Your task to perform on an android device: check data usage Image 0: 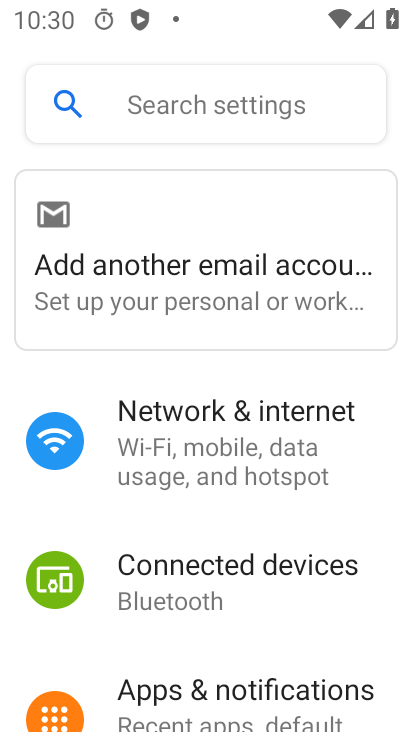
Step 0: press home button
Your task to perform on an android device: check data usage Image 1: 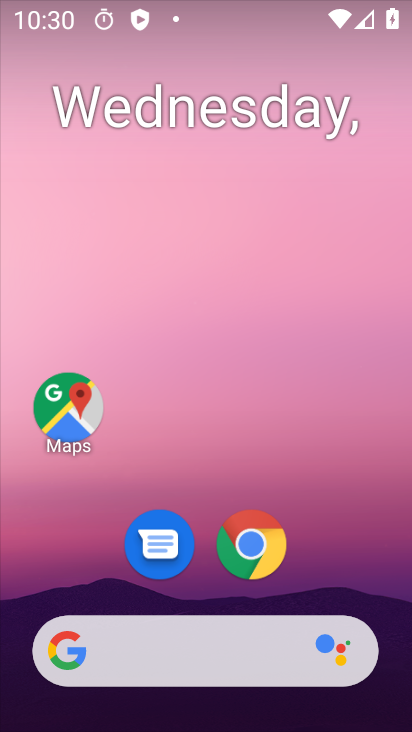
Step 1: drag from (261, 683) to (257, 191)
Your task to perform on an android device: check data usage Image 2: 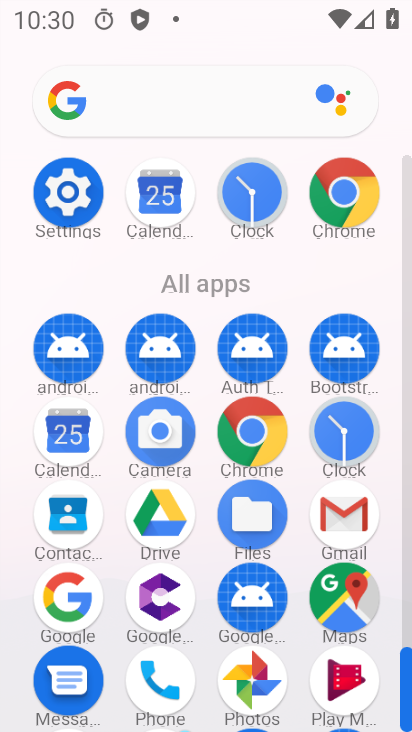
Step 2: click (74, 185)
Your task to perform on an android device: check data usage Image 3: 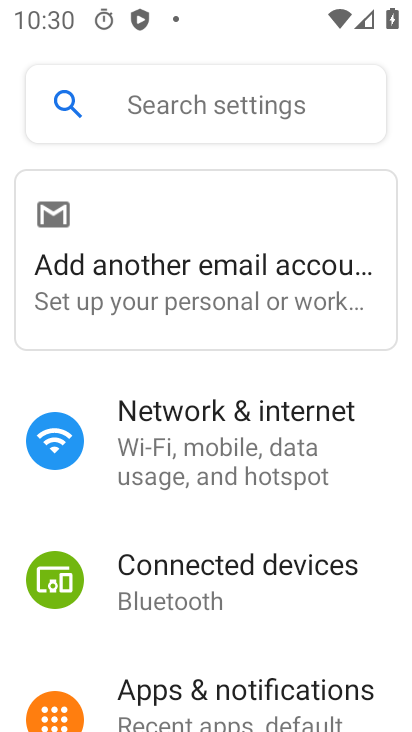
Step 3: click (170, 122)
Your task to perform on an android device: check data usage Image 4: 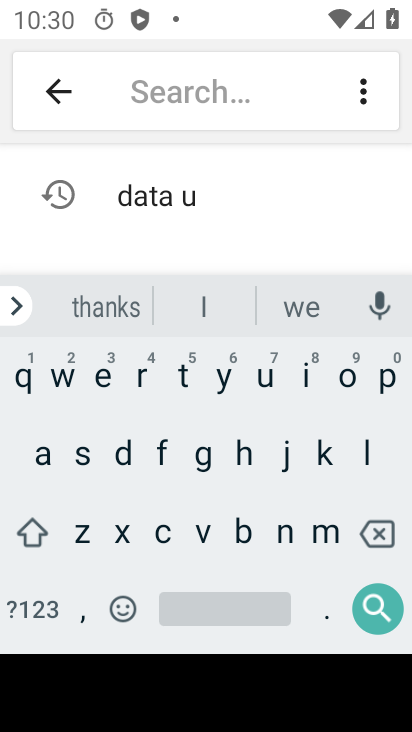
Step 4: click (158, 208)
Your task to perform on an android device: check data usage Image 5: 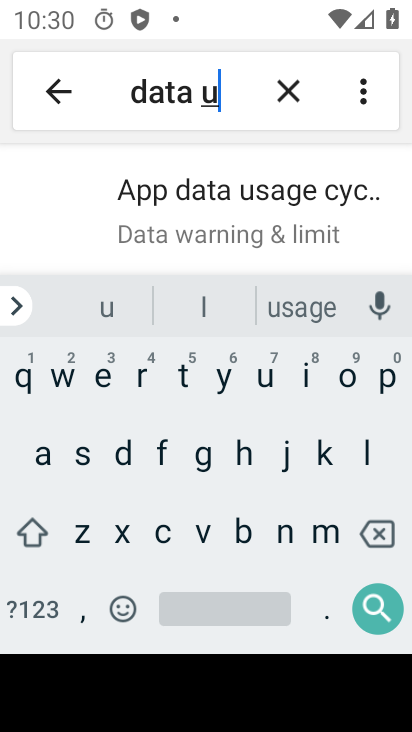
Step 5: press back button
Your task to perform on an android device: check data usage Image 6: 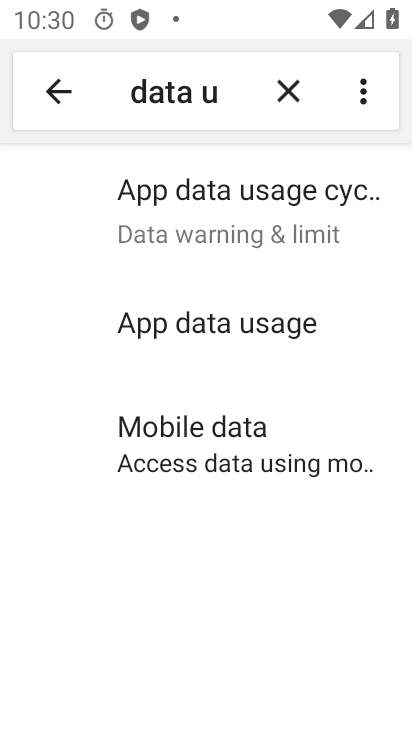
Step 6: click (221, 330)
Your task to perform on an android device: check data usage Image 7: 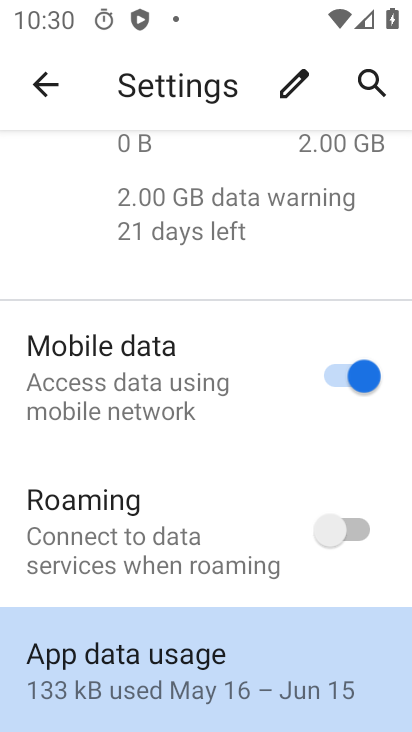
Step 7: click (151, 657)
Your task to perform on an android device: check data usage Image 8: 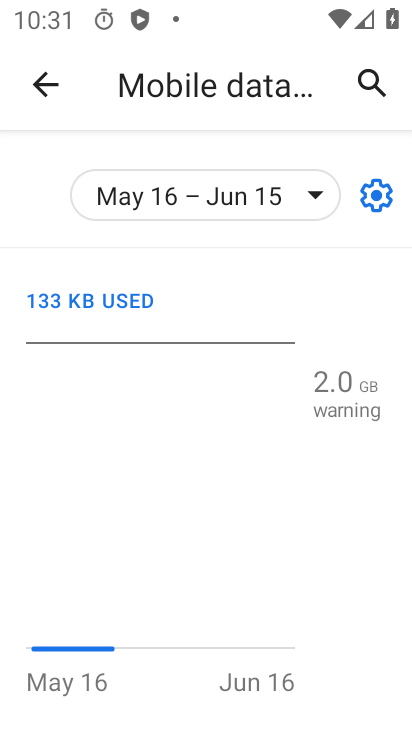
Step 8: task complete